Your task to perform on an android device: Open Google Chrome Image 0: 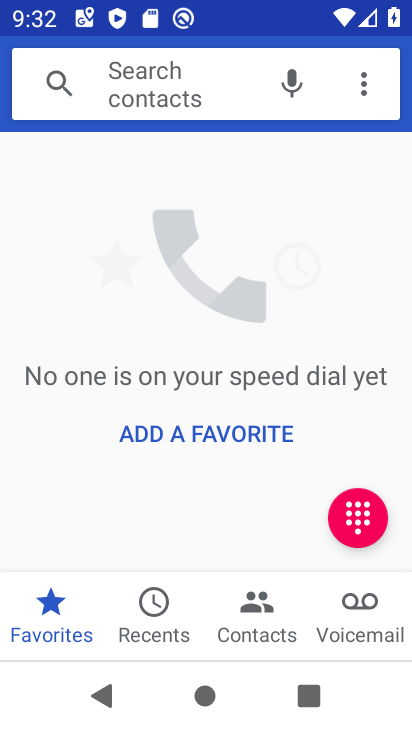
Step 0: press home button
Your task to perform on an android device: Open Google Chrome Image 1: 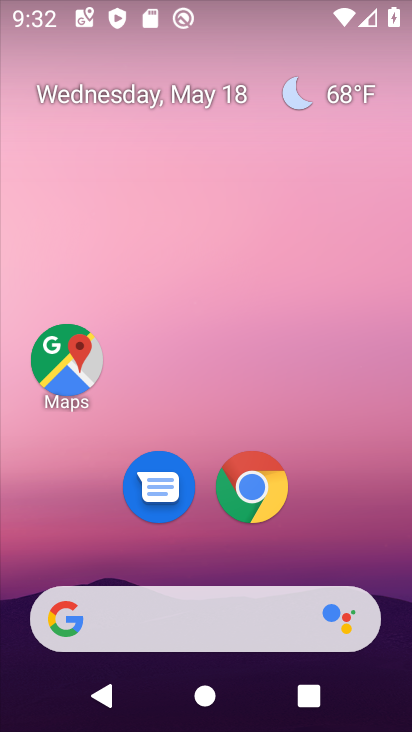
Step 1: drag from (346, 520) to (359, 75)
Your task to perform on an android device: Open Google Chrome Image 2: 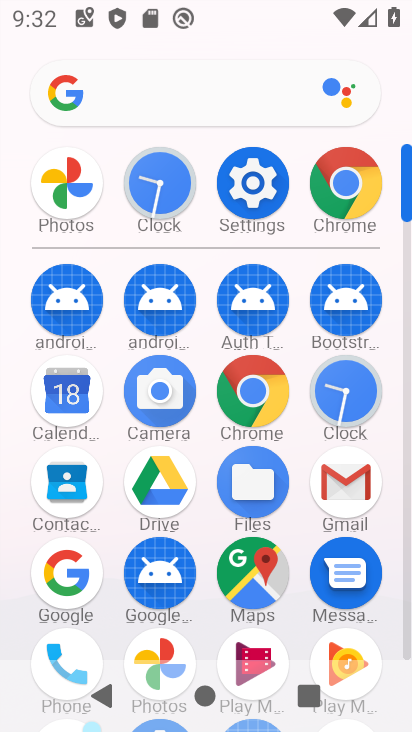
Step 2: click (245, 405)
Your task to perform on an android device: Open Google Chrome Image 3: 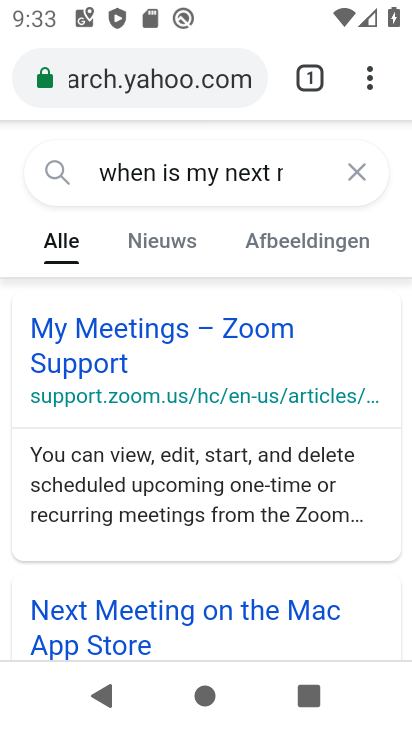
Step 3: task complete